Your task to perform on an android device: Empty the shopping cart on target. Add macbook to the cart on target, then select checkout. Image 0: 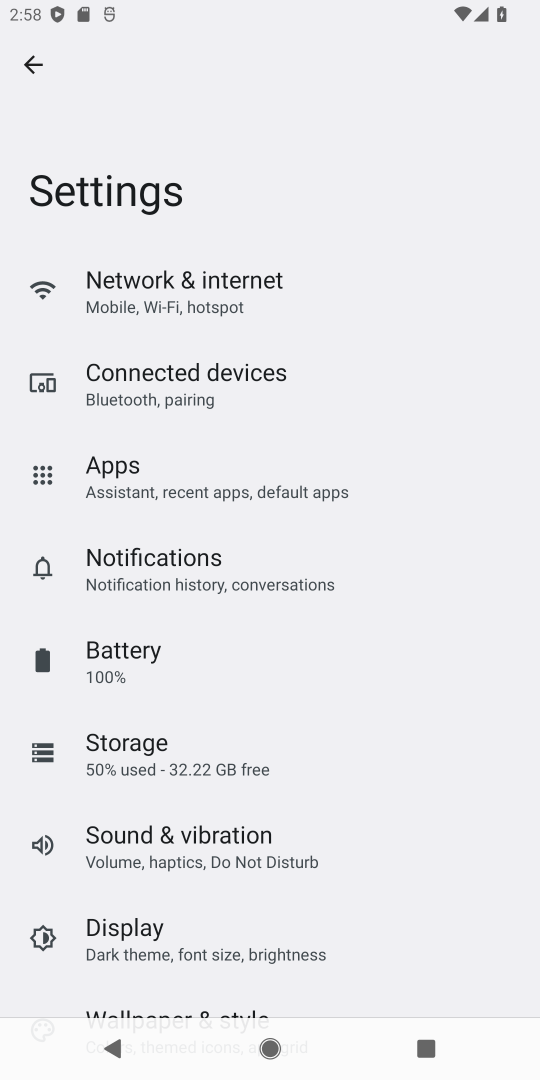
Step 0: press home button
Your task to perform on an android device: Empty the shopping cart on target. Add macbook to the cart on target, then select checkout. Image 1: 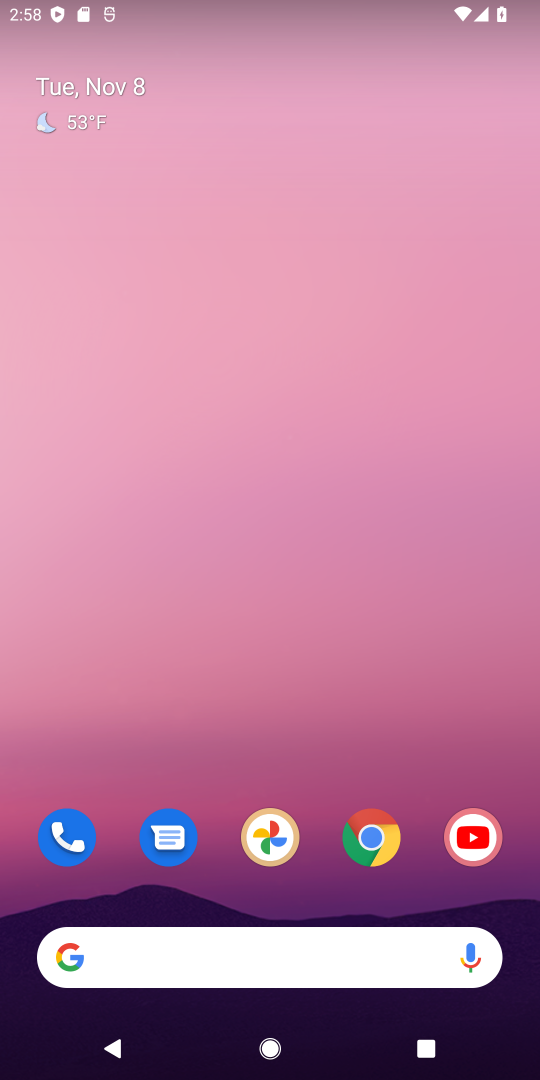
Step 1: click (397, 828)
Your task to perform on an android device: Empty the shopping cart on target. Add macbook to the cart on target, then select checkout. Image 2: 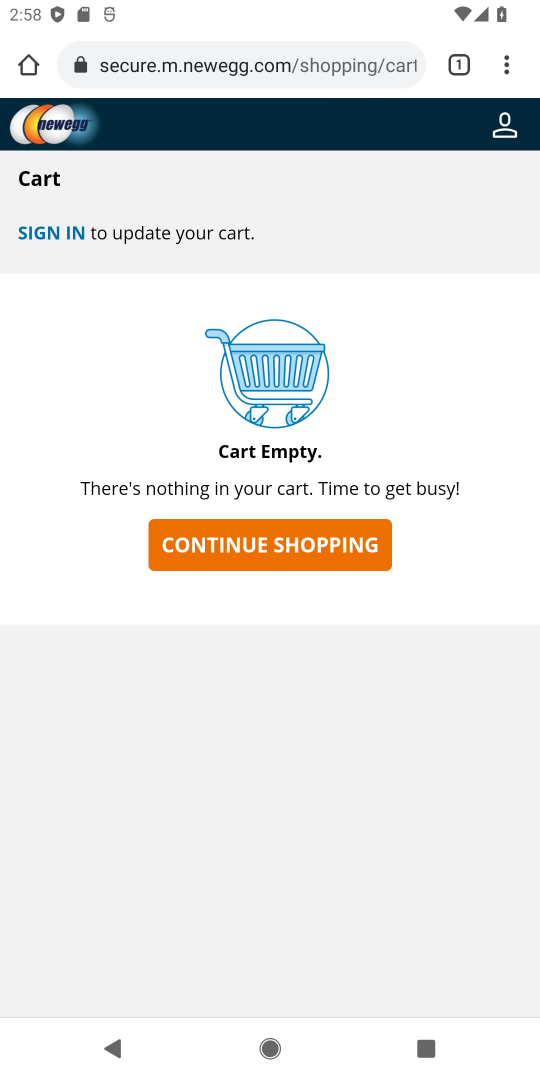
Step 2: click (172, 68)
Your task to perform on an android device: Empty the shopping cart on target. Add macbook to the cart on target, then select checkout. Image 3: 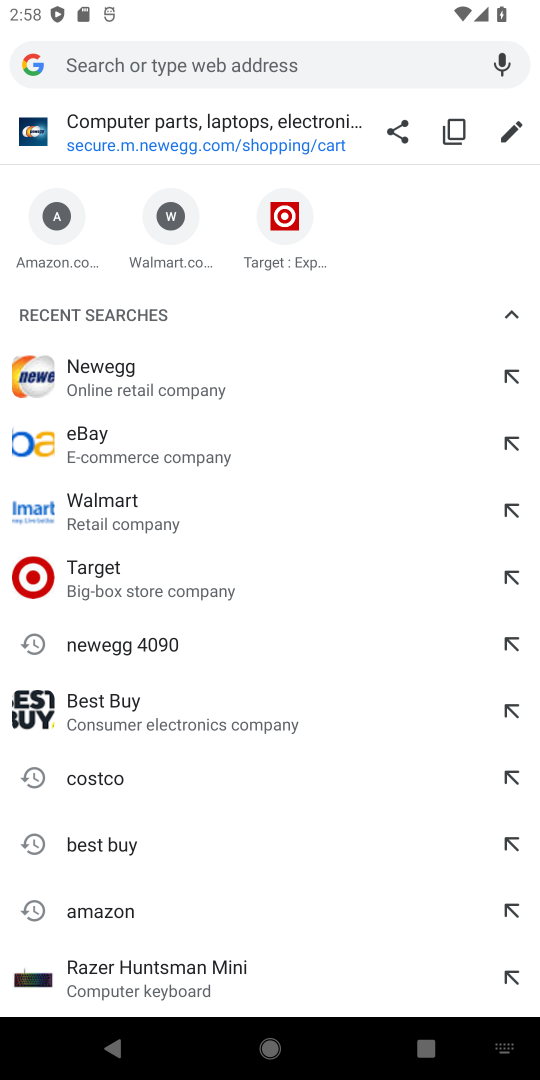
Step 3: type "target"
Your task to perform on an android device: Empty the shopping cart on target. Add macbook to the cart on target, then select checkout. Image 4: 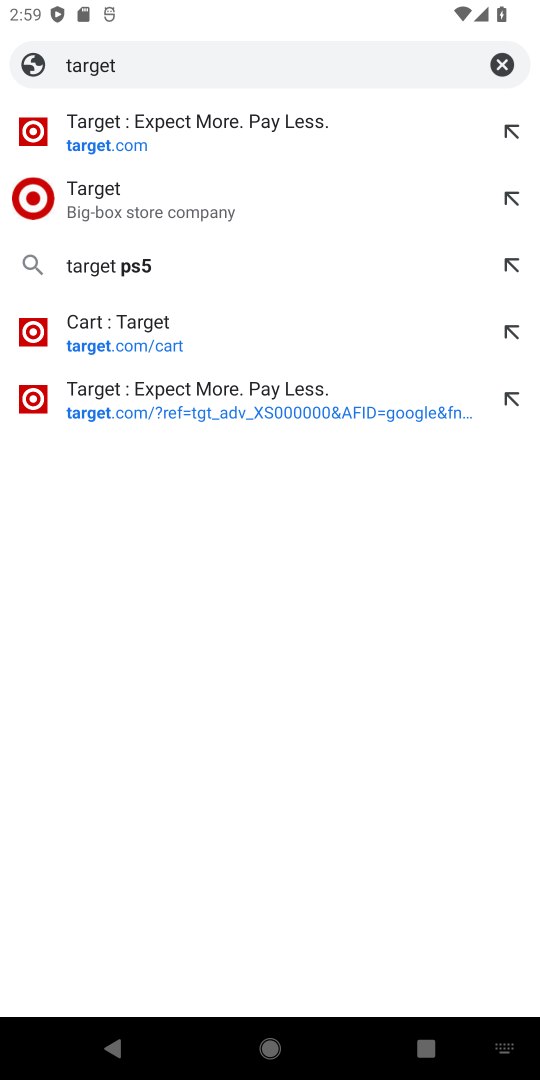
Step 4: click (96, 125)
Your task to perform on an android device: Empty the shopping cart on target. Add macbook to the cart on target, then select checkout. Image 5: 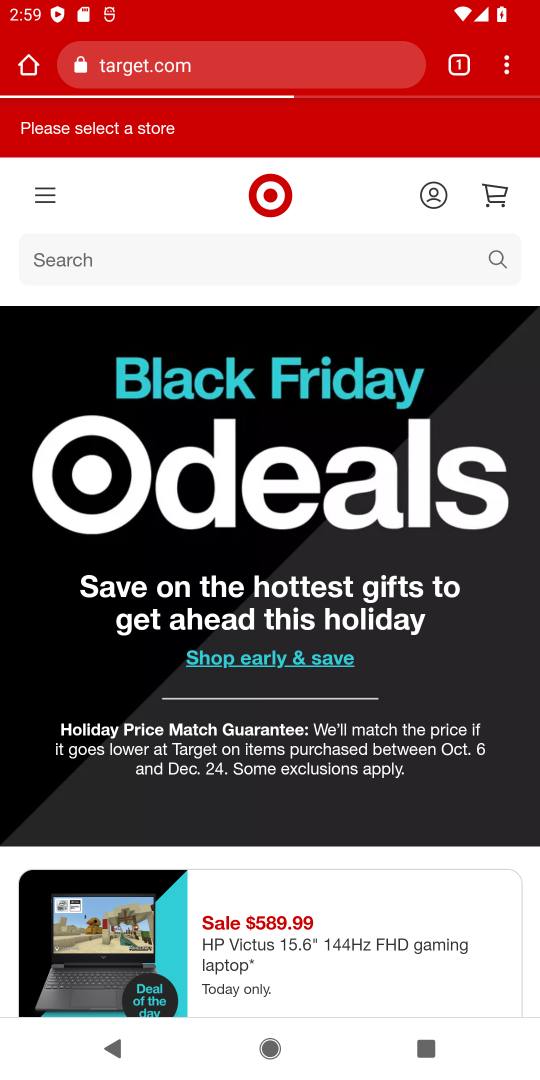
Step 5: click (496, 258)
Your task to perform on an android device: Empty the shopping cart on target. Add macbook to the cart on target, then select checkout. Image 6: 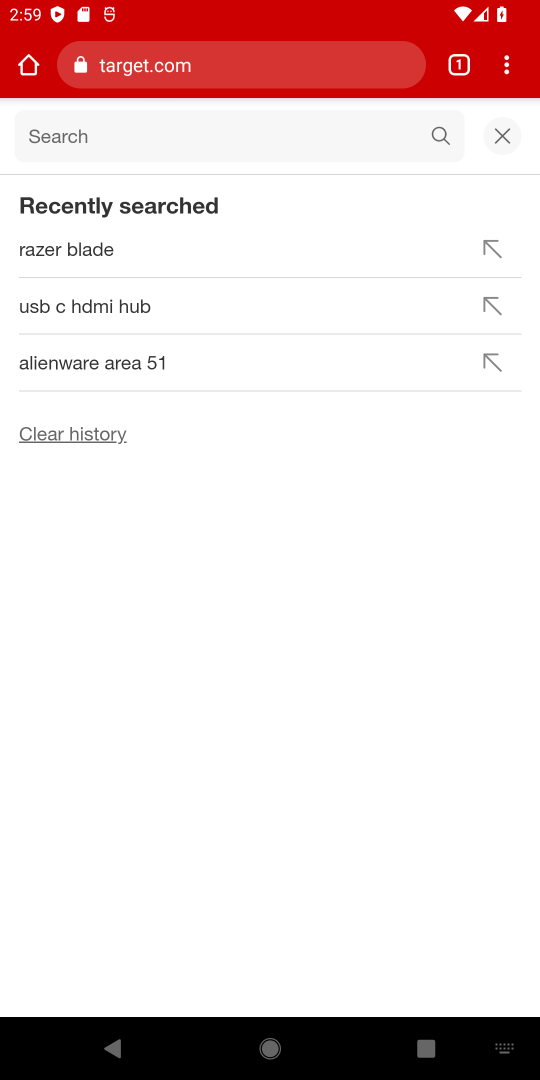
Step 6: type "mackbook "
Your task to perform on an android device: Empty the shopping cart on target. Add macbook to the cart on target, then select checkout. Image 7: 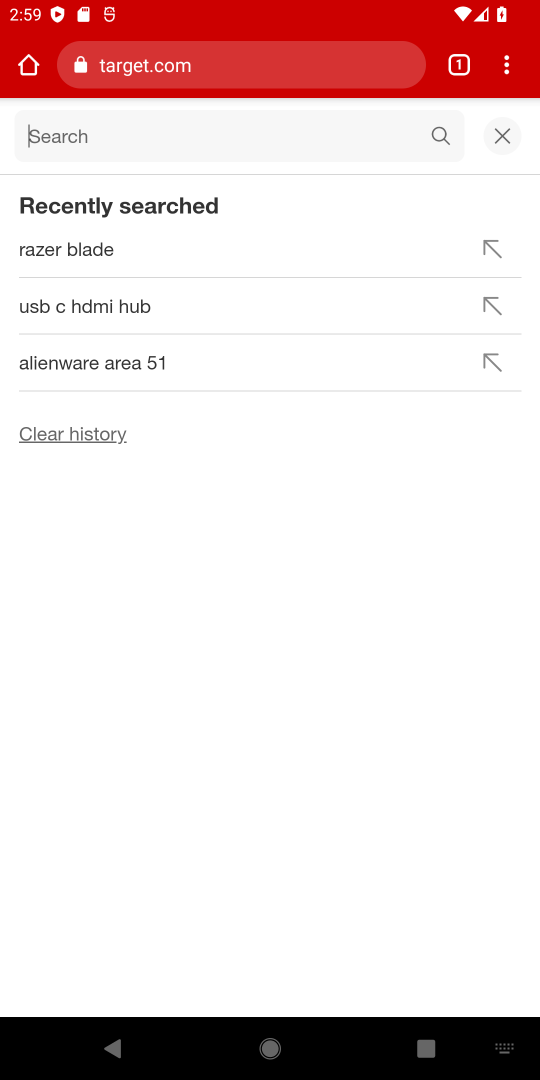
Step 7: type ""
Your task to perform on an android device: Empty the shopping cart on target. Add macbook to the cart on target, then select checkout. Image 8: 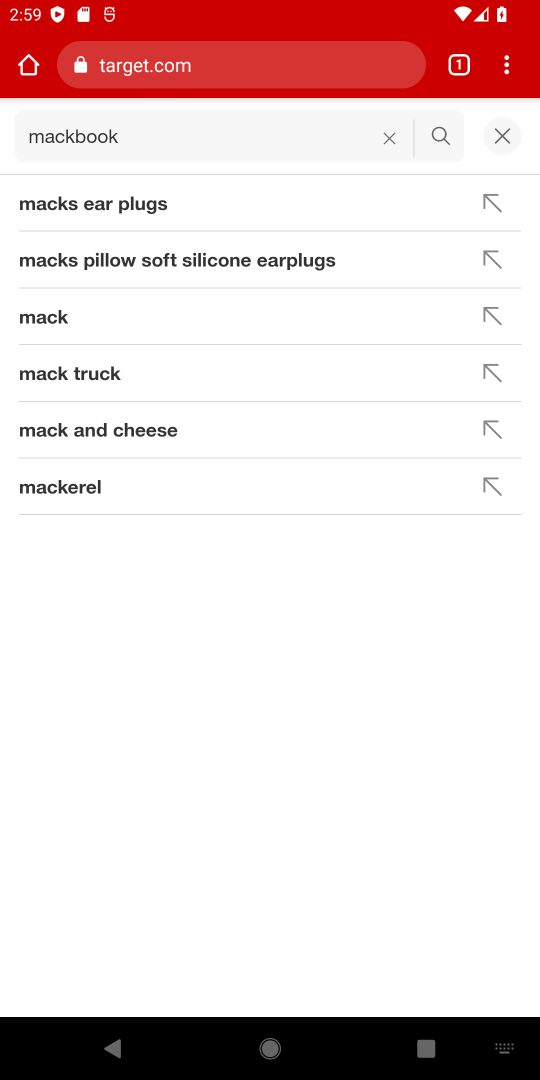
Step 8: click (76, 128)
Your task to perform on an android device: Empty the shopping cart on target. Add macbook to the cart on target, then select checkout. Image 9: 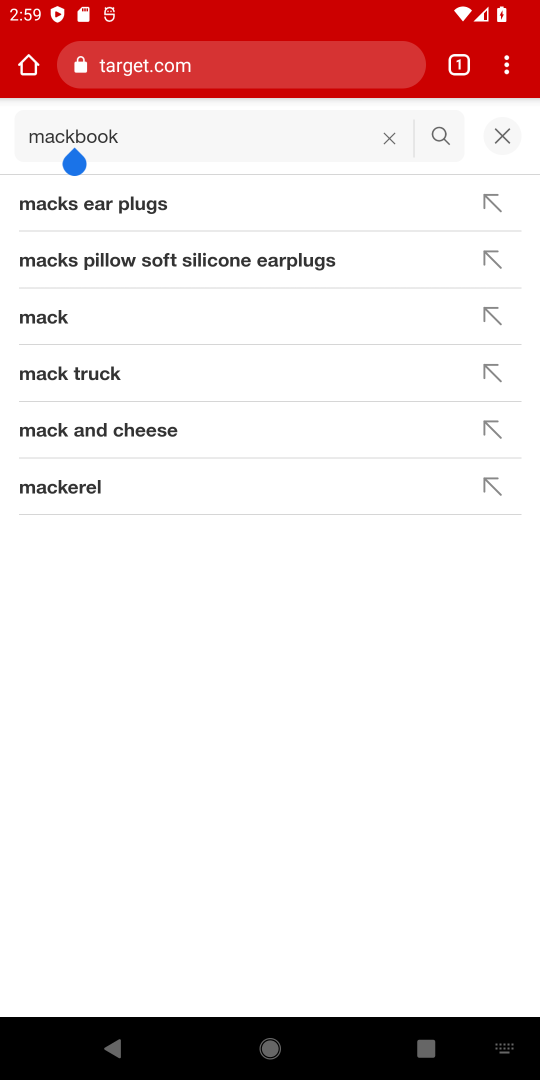
Step 9: click (386, 133)
Your task to perform on an android device: Empty the shopping cart on target. Add macbook to the cart on target, then select checkout. Image 10: 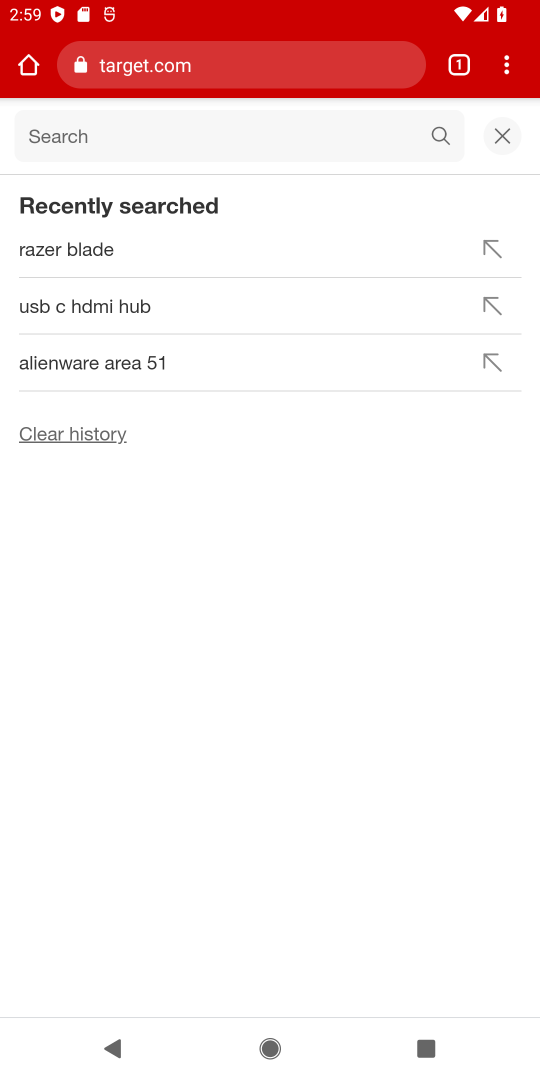
Step 10: click (438, 131)
Your task to perform on an android device: Empty the shopping cart on target. Add macbook to the cart on target, then select checkout. Image 11: 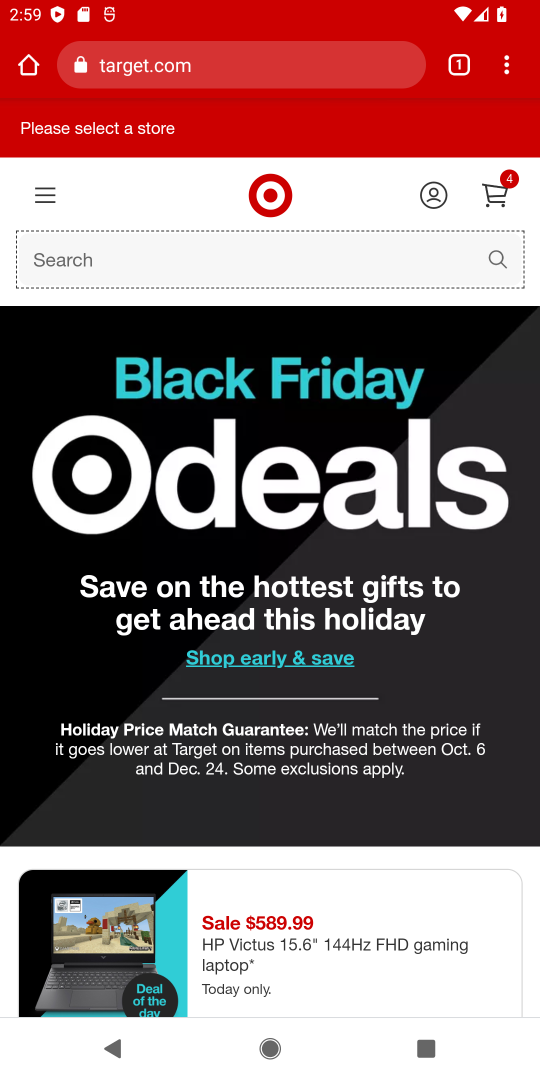
Step 11: click (192, 246)
Your task to perform on an android device: Empty the shopping cart on target. Add macbook to the cart on target, then select checkout. Image 12: 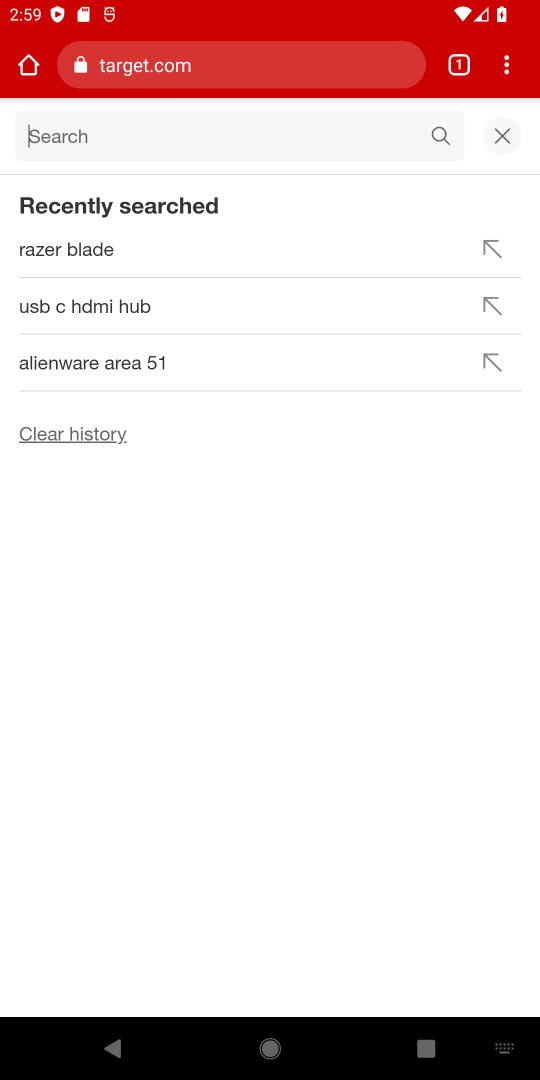
Step 12: type "macbook"
Your task to perform on an android device: Empty the shopping cart on target. Add macbook to the cart on target, then select checkout. Image 13: 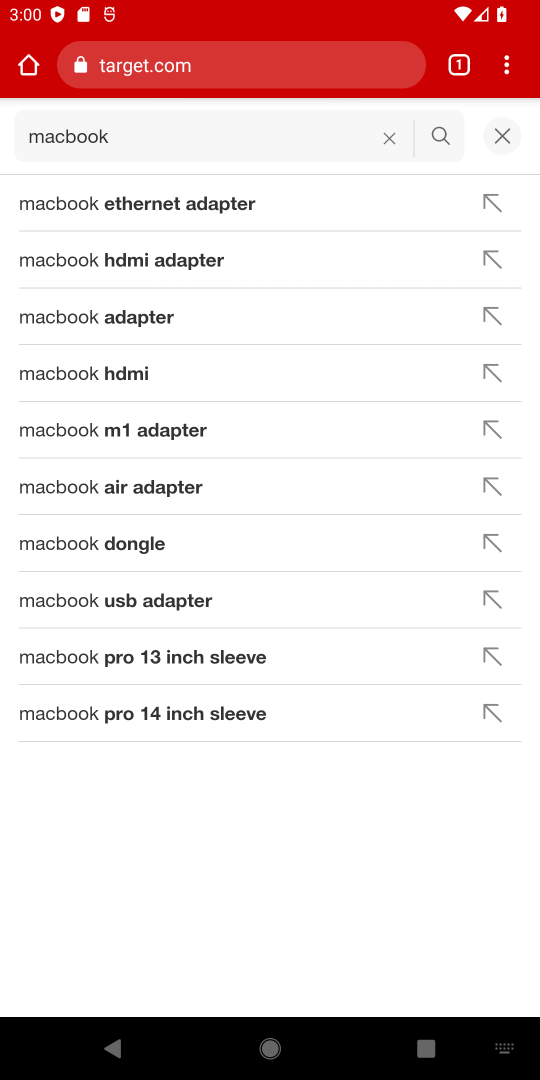
Step 13: click (105, 432)
Your task to perform on an android device: Empty the shopping cart on target. Add macbook to the cart on target, then select checkout. Image 14: 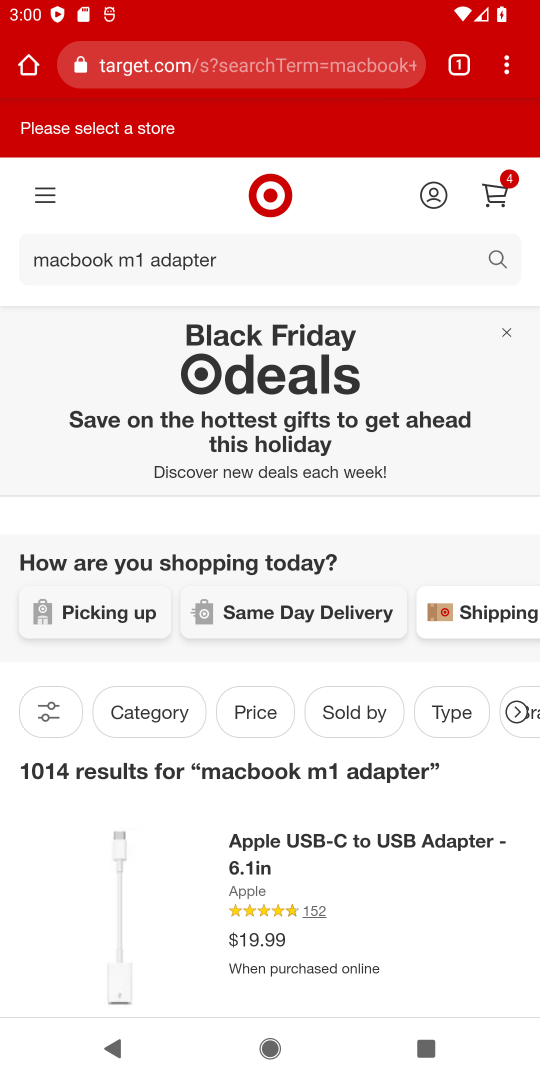
Step 14: drag from (251, 808) to (196, 247)
Your task to perform on an android device: Empty the shopping cart on target. Add macbook to the cart on target, then select checkout. Image 15: 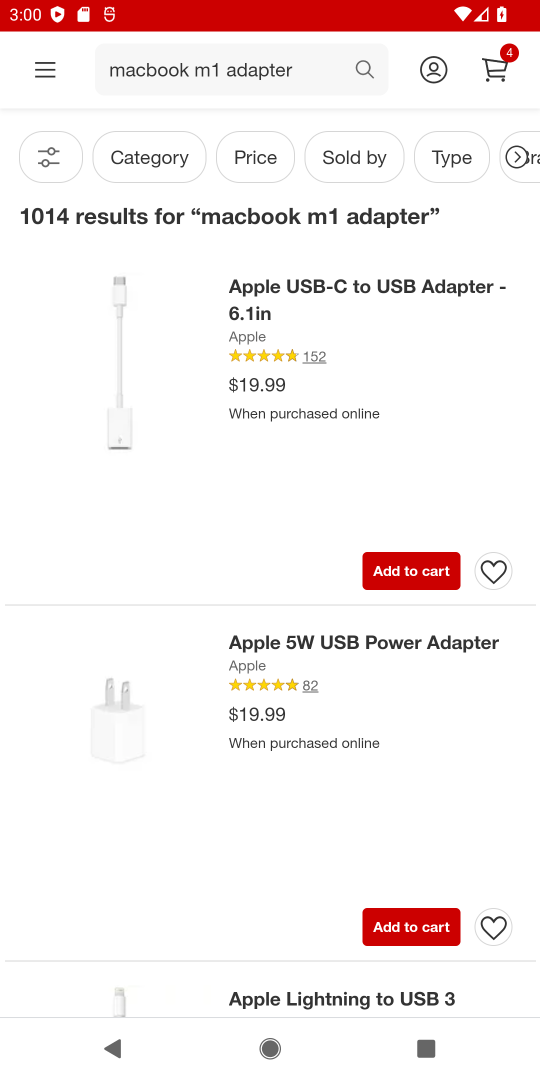
Step 15: click (315, 280)
Your task to perform on an android device: Empty the shopping cart on target. Add macbook to the cart on target, then select checkout. Image 16: 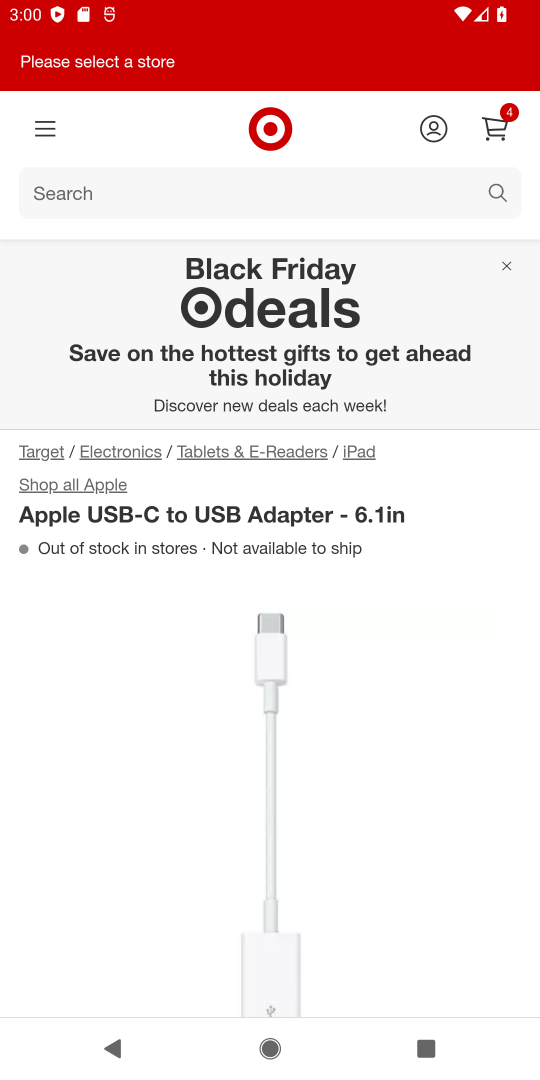
Step 16: drag from (442, 786) to (369, 342)
Your task to perform on an android device: Empty the shopping cart on target. Add macbook to the cart on target, then select checkout. Image 17: 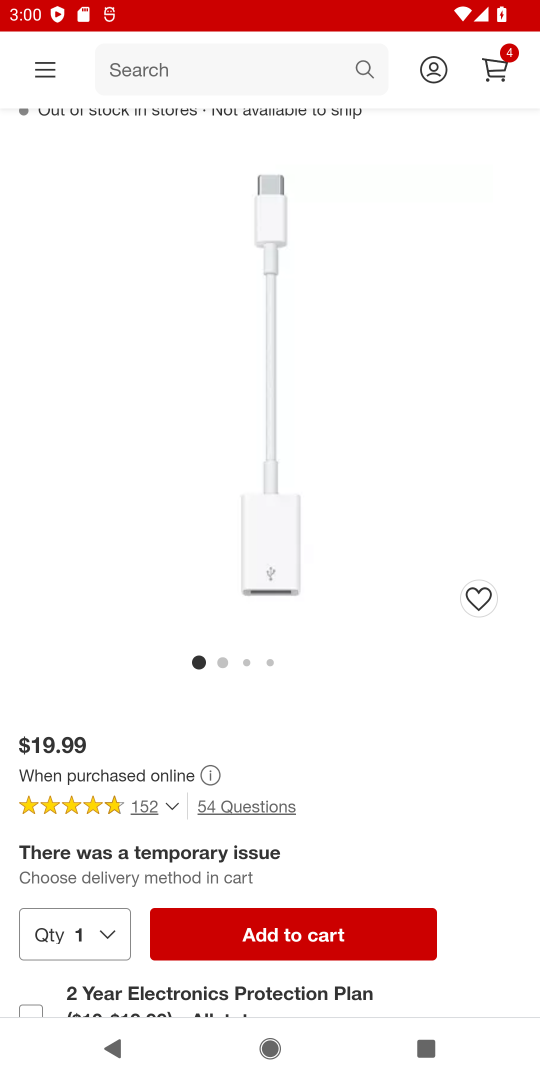
Step 17: click (308, 930)
Your task to perform on an android device: Empty the shopping cart on target. Add macbook to the cart on target, then select checkout. Image 18: 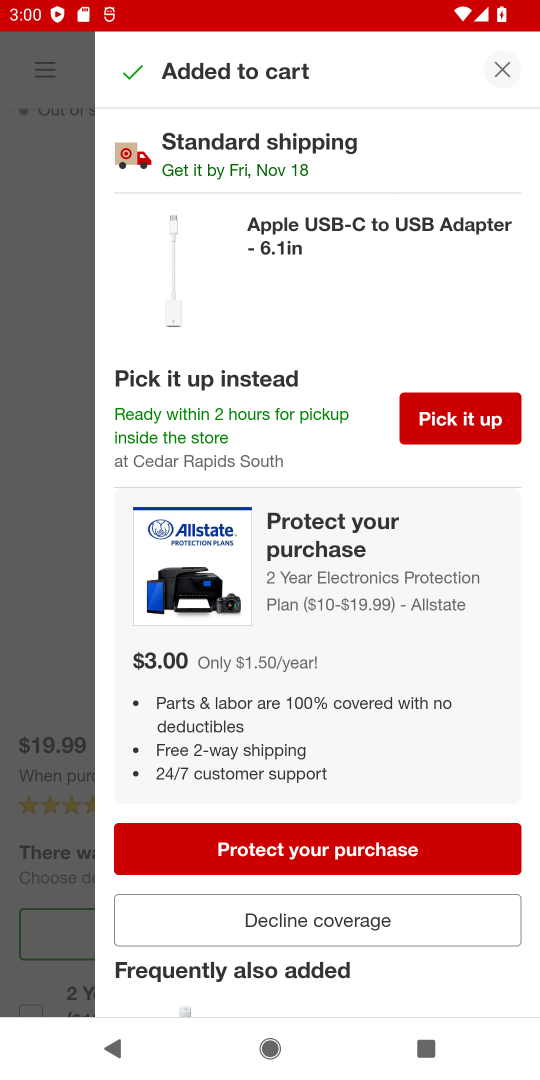
Step 18: click (301, 845)
Your task to perform on an android device: Empty the shopping cart on target. Add macbook to the cart on target, then select checkout. Image 19: 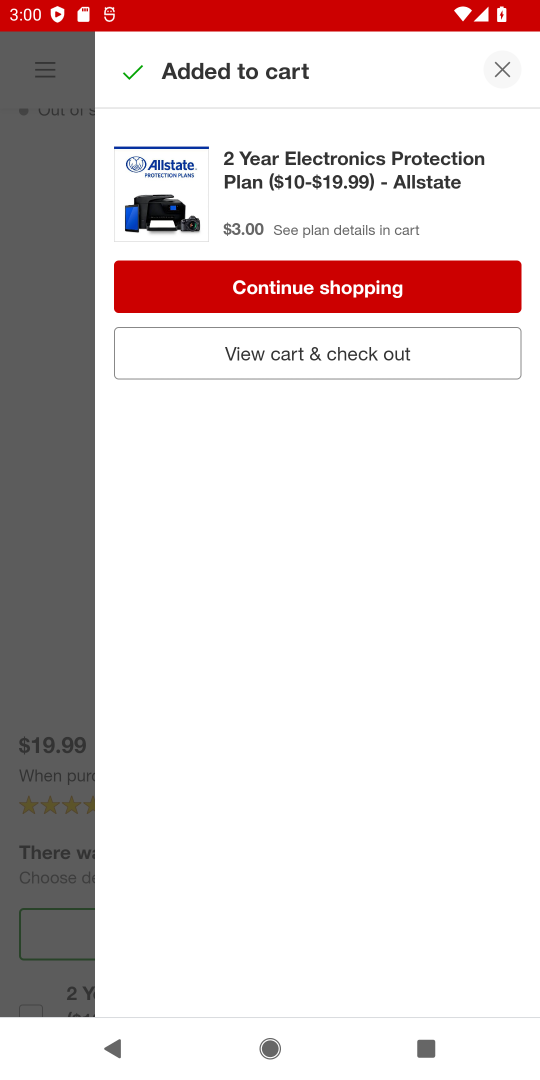
Step 19: click (268, 352)
Your task to perform on an android device: Empty the shopping cart on target. Add macbook to the cart on target, then select checkout. Image 20: 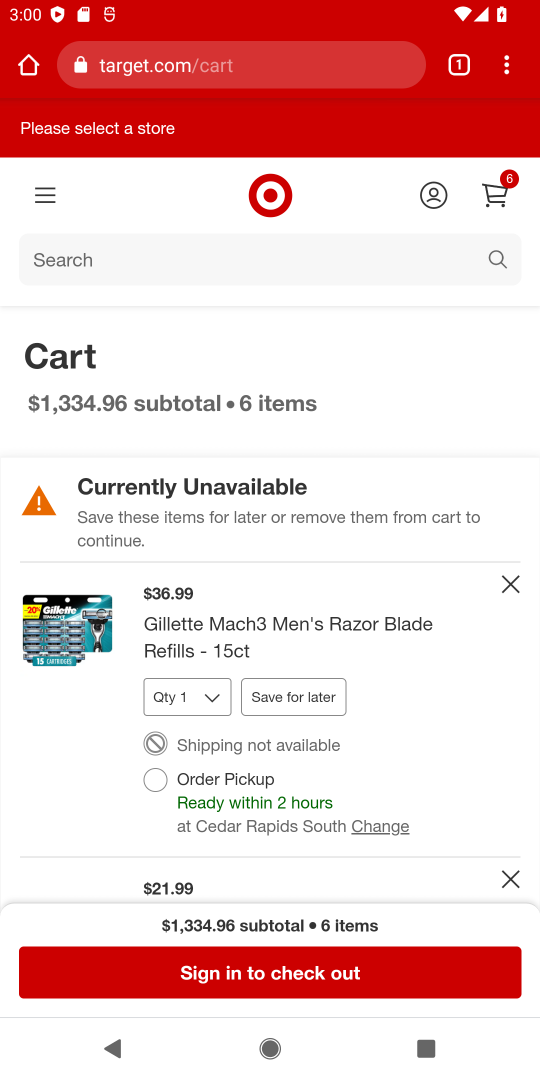
Step 20: click (272, 974)
Your task to perform on an android device: Empty the shopping cart on target. Add macbook to the cart on target, then select checkout. Image 21: 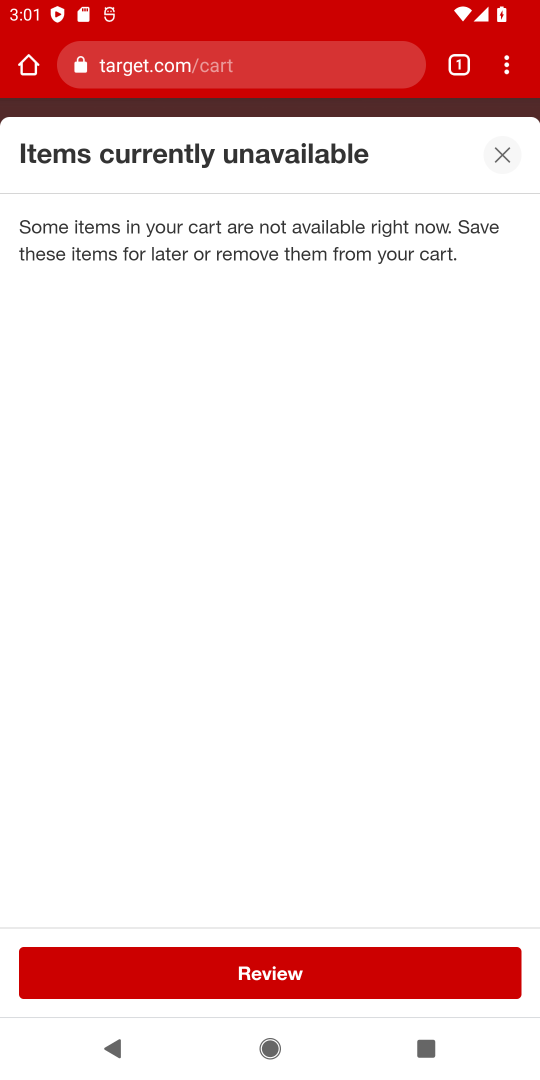
Step 21: click (500, 158)
Your task to perform on an android device: Empty the shopping cart on target. Add macbook to the cart on target, then select checkout. Image 22: 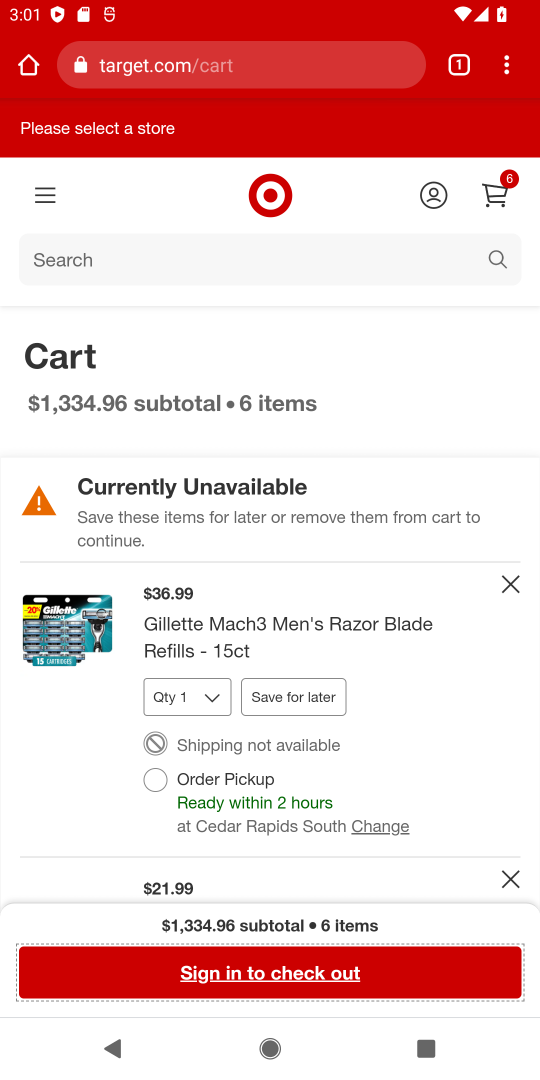
Step 22: drag from (211, 726) to (222, 307)
Your task to perform on an android device: Empty the shopping cart on target. Add macbook to the cart on target, then select checkout. Image 23: 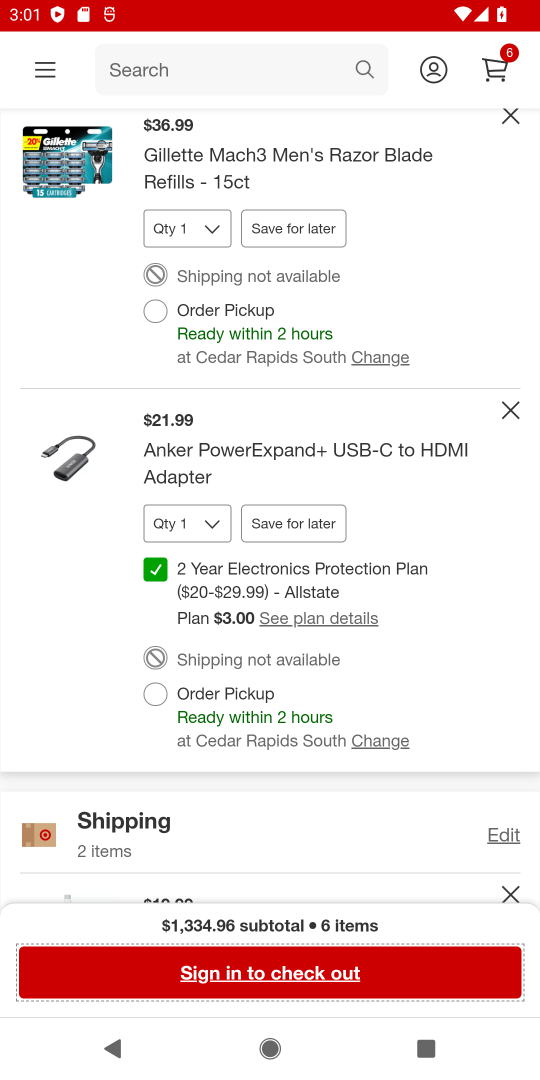
Step 23: drag from (249, 765) to (257, 448)
Your task to perform on an android device: Empty the shopping cart on target. Add macbook to the cart on target, then select checkout. Image 24: 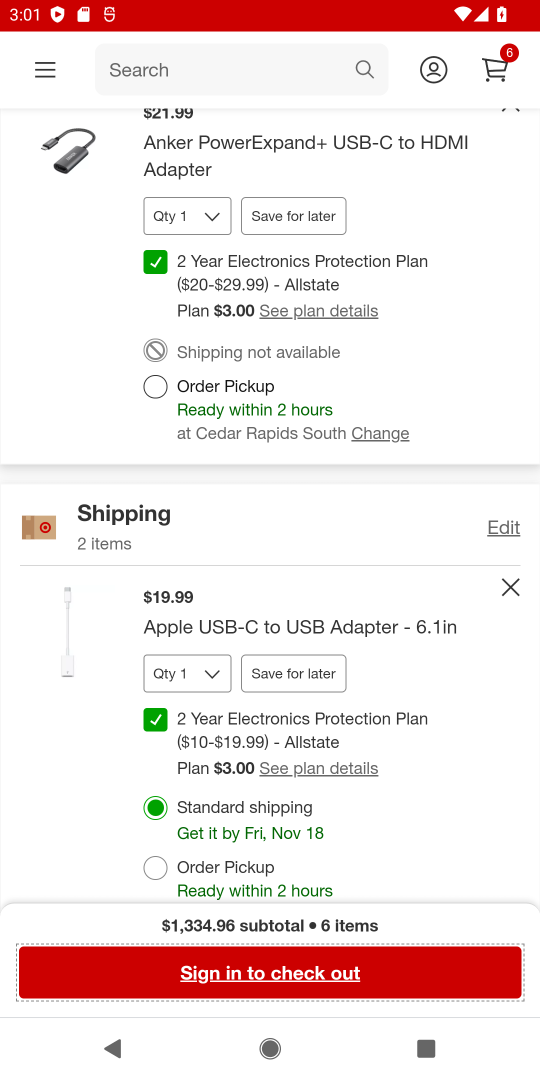
Step 24: click (321, 974)
Your task to perform on an android device: Empty the shopping cart on target. Add macbook to the cart on target, then select checkout. Image 25: 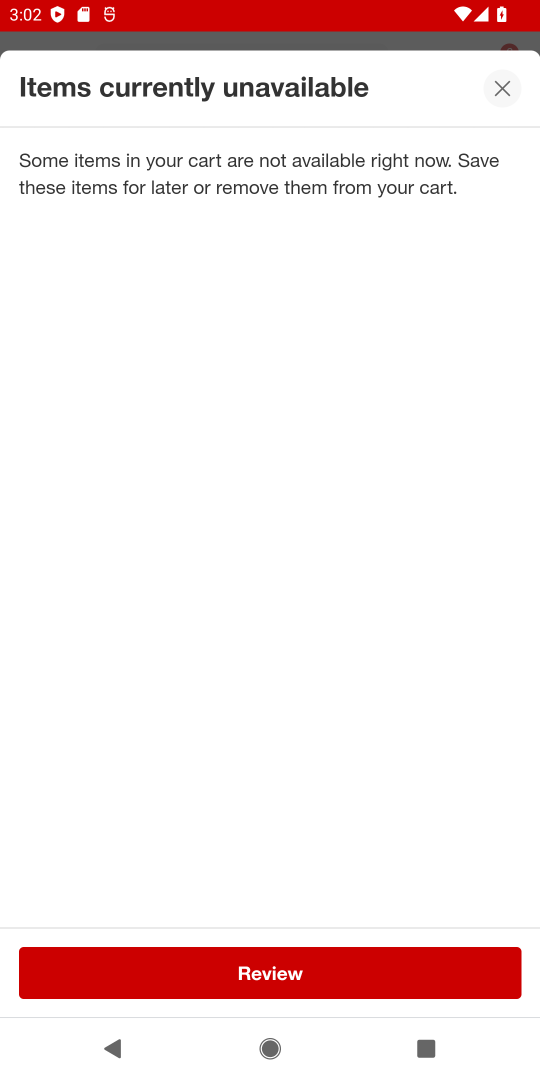
Step 25: task complete